Your task to perform on an android device: clear history in the chrome app Image 0: 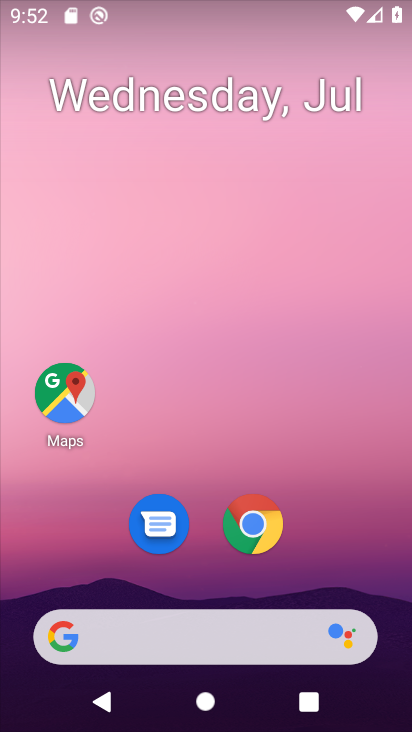
Step 0: click (262, 531)
Your task to perform on an android device: clear history in the chrome app Image 1: 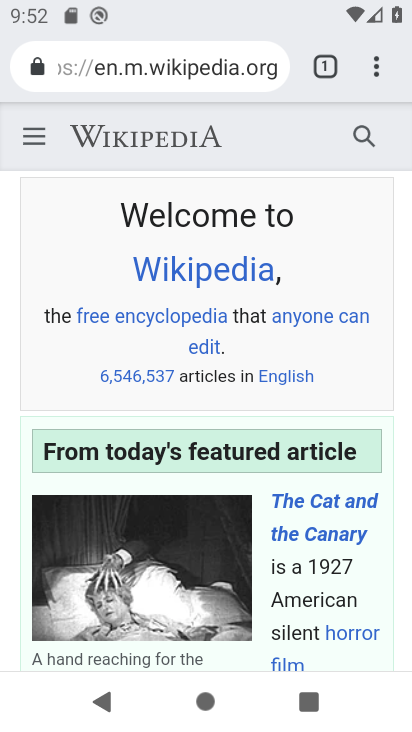
Step 1: click (377, 60)
Your task to perform on an android device: clear history in the chrome app Image 2: 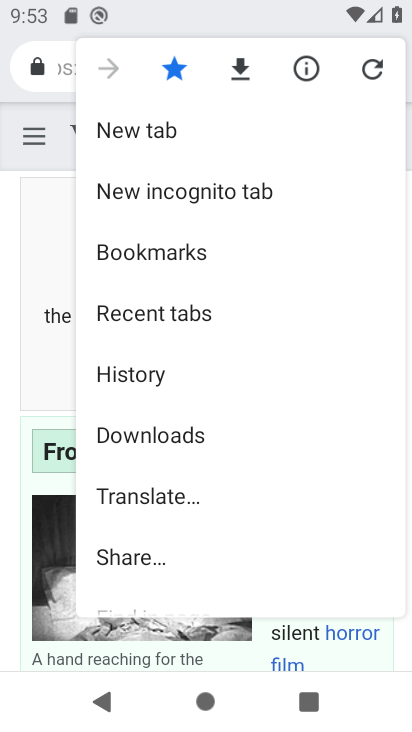
Step 2: click (152, 371)
Your task to perform on an android device: clear history in the chrome app Image 3: 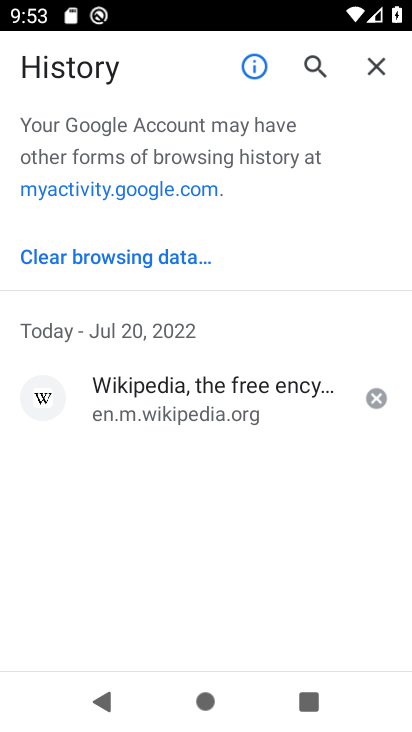
Step 3: click (141, 257)
Your task to perform on an android device: clear history in the chrome app Image 4: 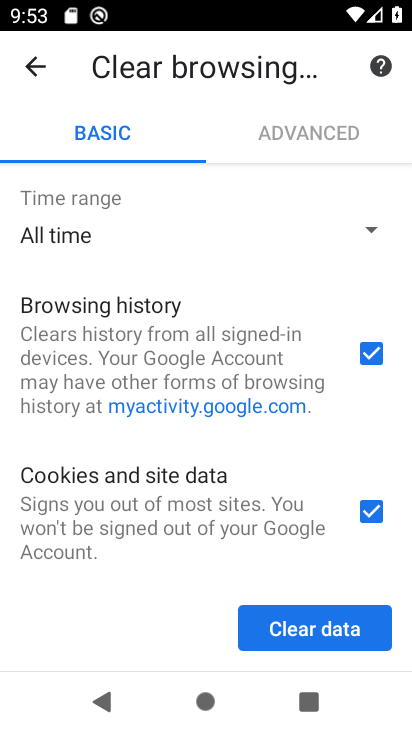
Step 4: click (322, 624)
Your task to perform on an android device: clear history in the chrome app Image 5: 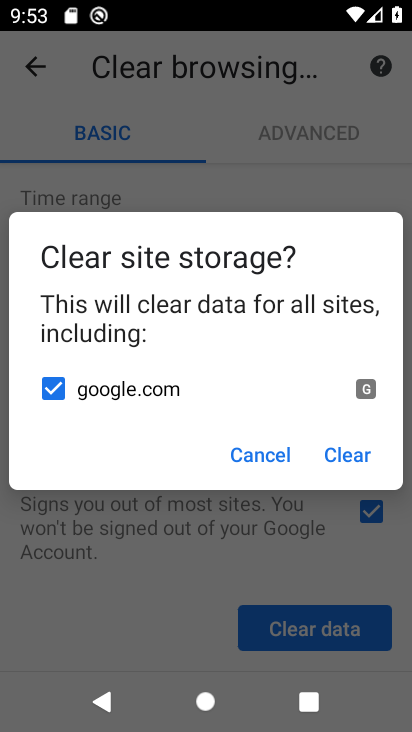
Step 5: click (348, 454)
Your task to perform on an android device: clear history in the chrome app Image 6: 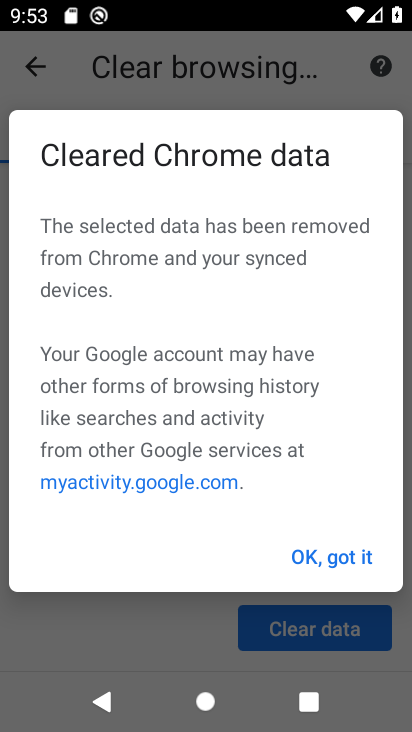
Step 6: click (359, 555)
Your task to perform on an android device: clear history in the chrome app Image 7: 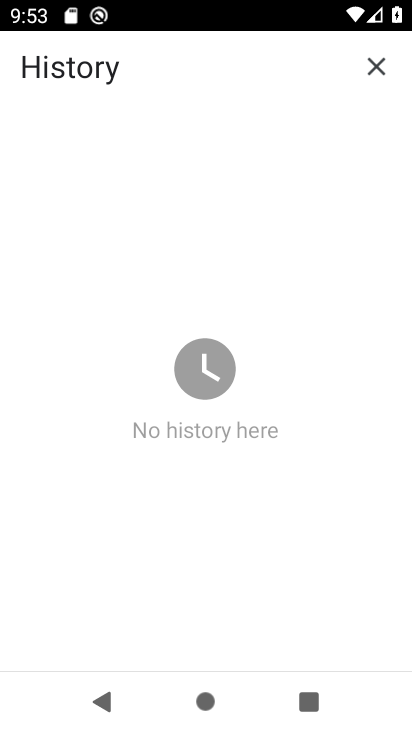
Step 7: task complete